Your task to perform on an android device: See recent photos Image 0: 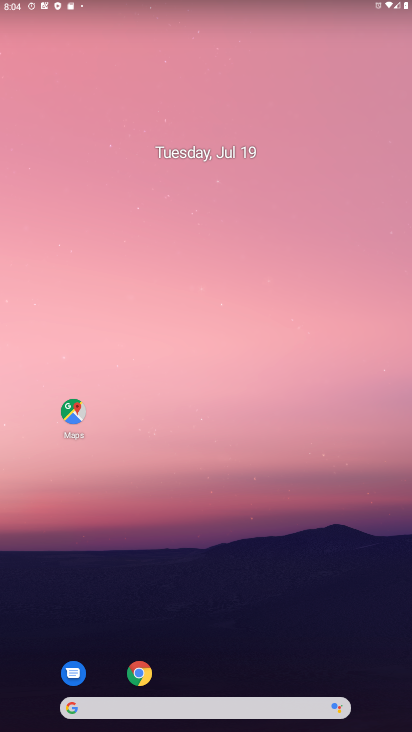
Step 0: drag from (276, 513) to (218, 0)
Your task to perform on an android device: See recent photos Image 1: 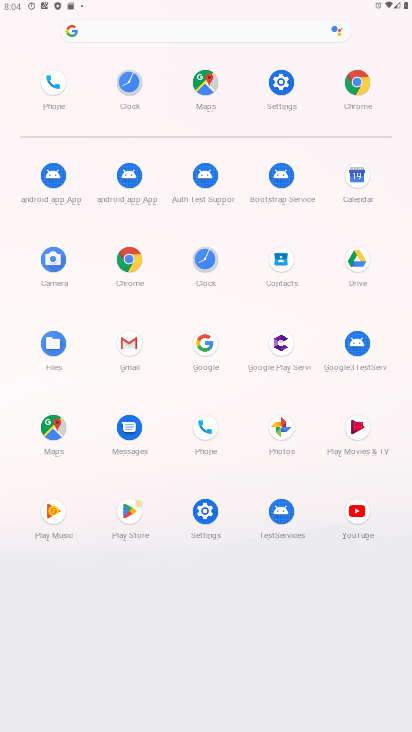
Step 1: click (296, 432)
Your task to perform on an android device: See recent photos Image 2: 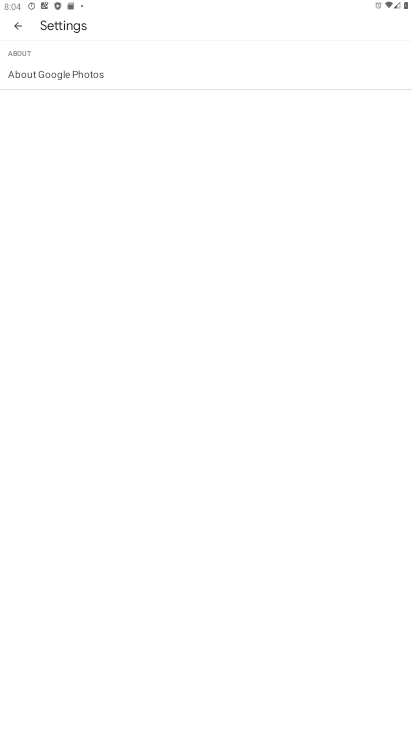
Step 2: click (20, 15)
Your task to perform on an android device: See recent photos Image 3: 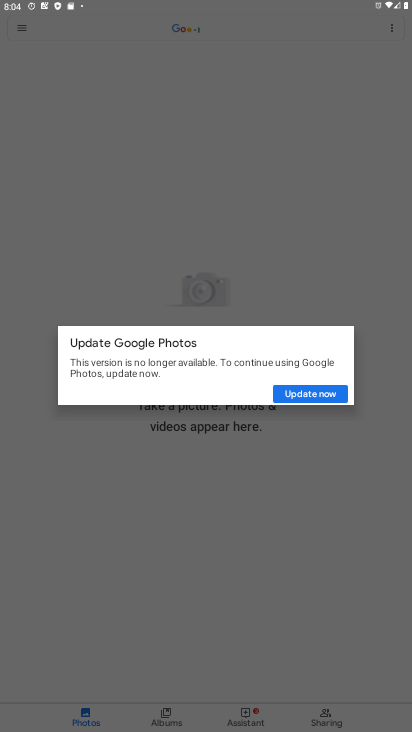
Step 3: click (299, 390)
Your task to perform on an android device: See recent photos Image 4: 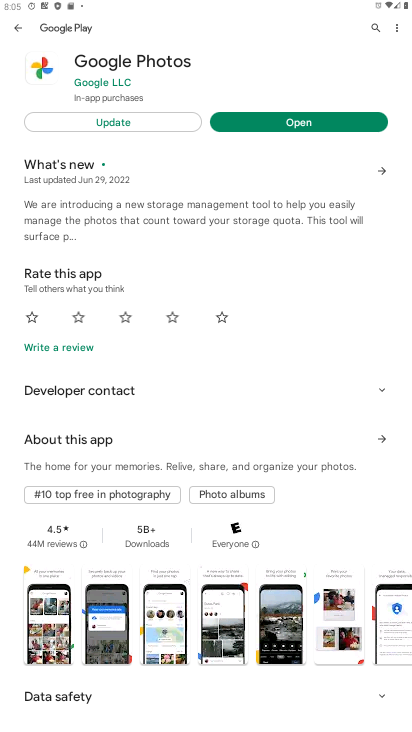
Step 4: click (168, 114)
Your task to perform on an android device: See recent photos Image 5: 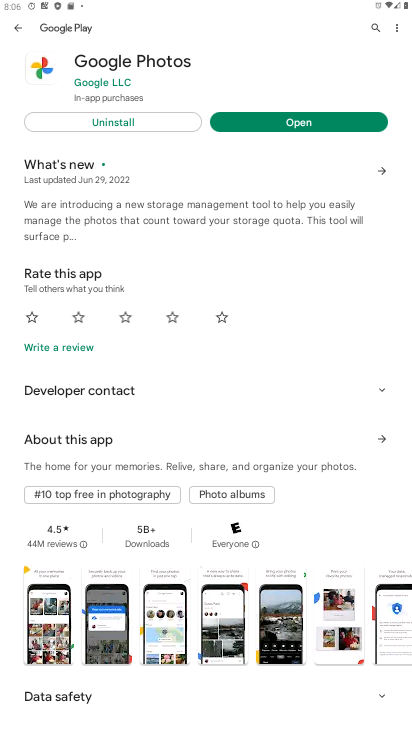
Step 5: click (264, 123)
Your task to perform on an android device: See recent photos Image 6: 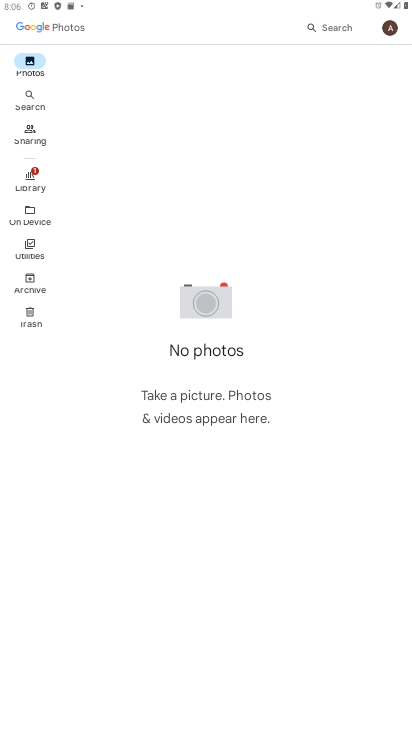
Step 6: click (33, 66)
Your task to perform on an android device: See recent photos Image 7: 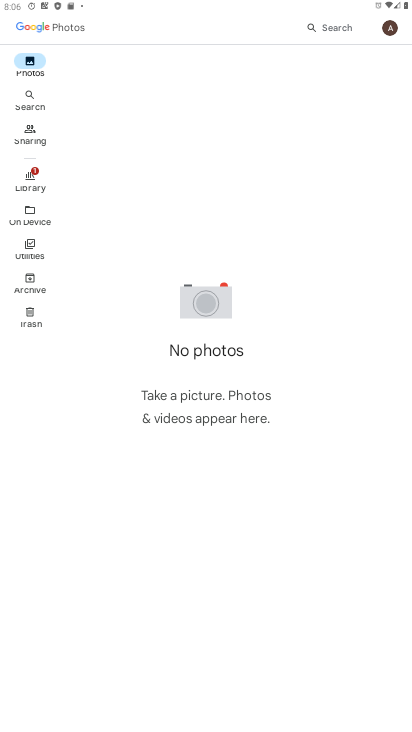
Step 7: task complete